Your task to perform on an android device: turn notification dots on Image 0: 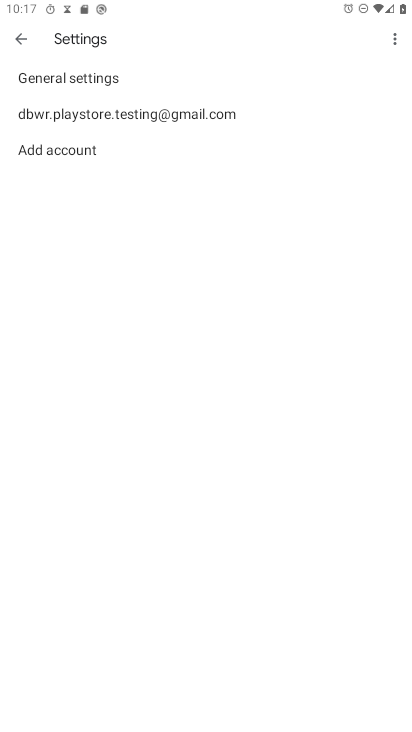
Step 0: press home button
Your task to perform on an android device: turn notification dots on Image 1: 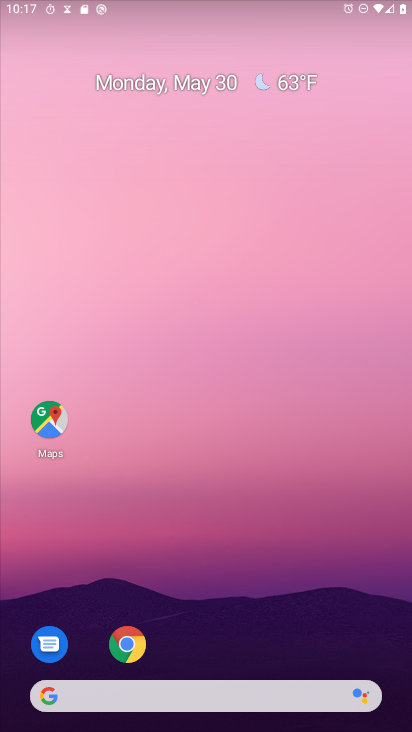
Step 1: drag from (208, 607) to (223, 13)
Your task to perform on an android device: turn notification dots on Image 2: 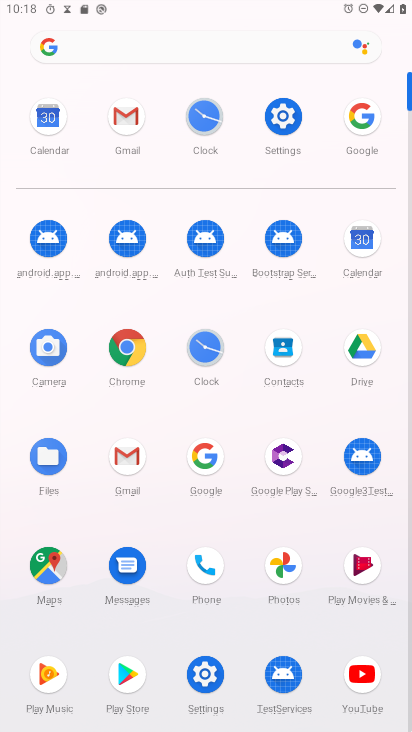
Step 2: click (284, 115)
Your task to perform on an android device: turn notification dots on Image 3: 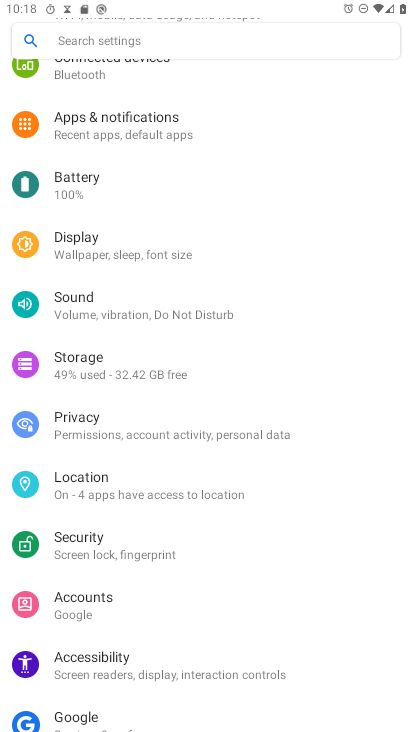
Step 3: click (135, 133)
Your task to perform on an android device: turn notification dots on Image 4: 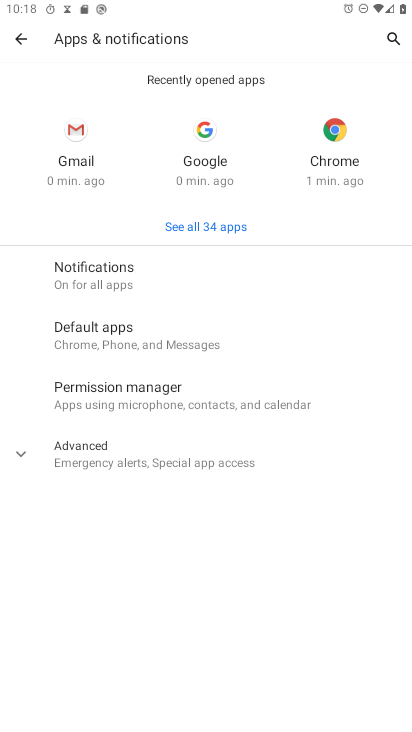
Step 4: click (108, 291)
Your task to perform on an android device: turn notification dots on Image 5: 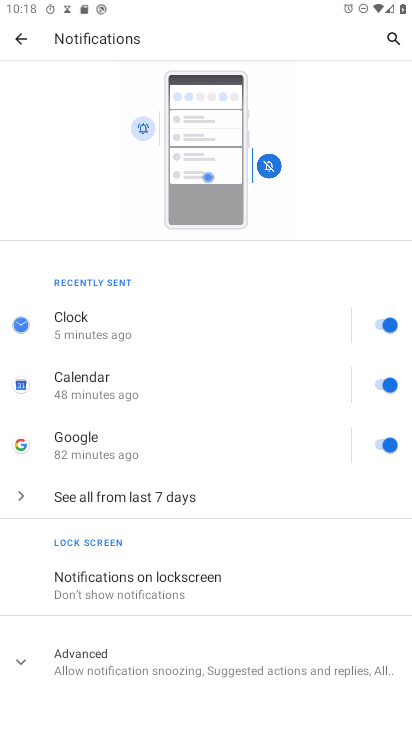
Step 5: drag from (220, 643) to (224, 265)
Your task to perform on an android device: turn notification dots on Image 6: 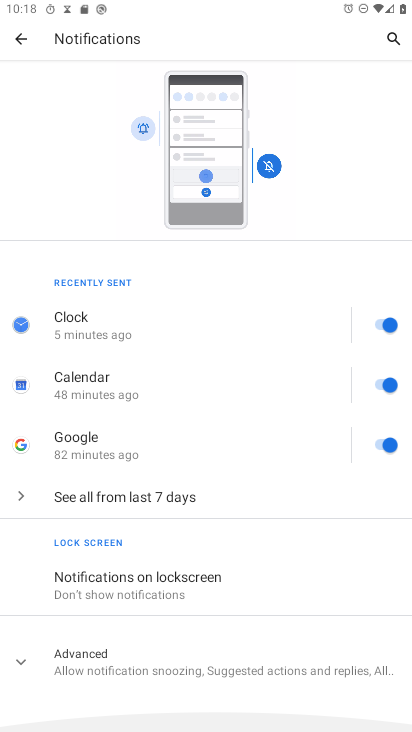
Step 6: click (61, 645)
Your task to perform on an android device: turn notification dots on Image 7: 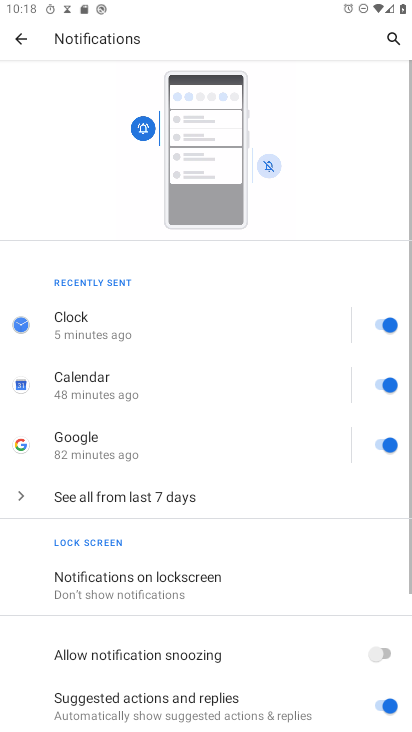
Step 7: drag from (312, 620) to (283, 157)
Your task to perform on an android device: turn notification dots on Image 8: 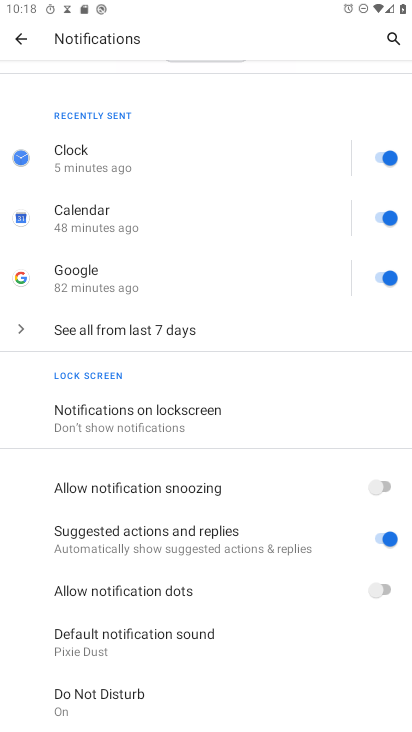
Step 8: click (382, 588)
Your task to perform on an android device: turn notification dots on Image 9: 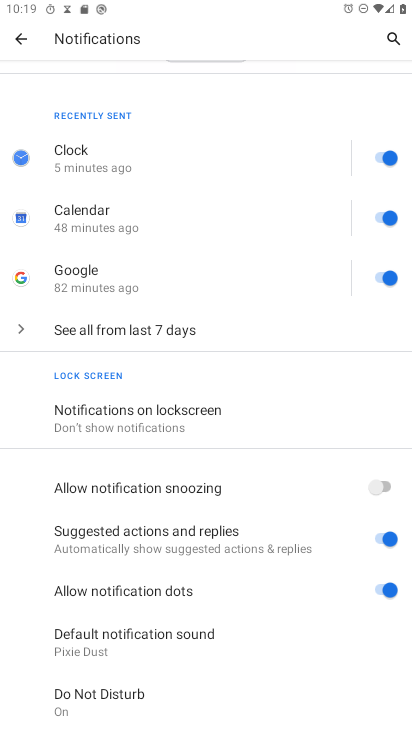
Step 9: task complete